Your task to perform on an android device: refresh tabs in the chrome app Image 0: 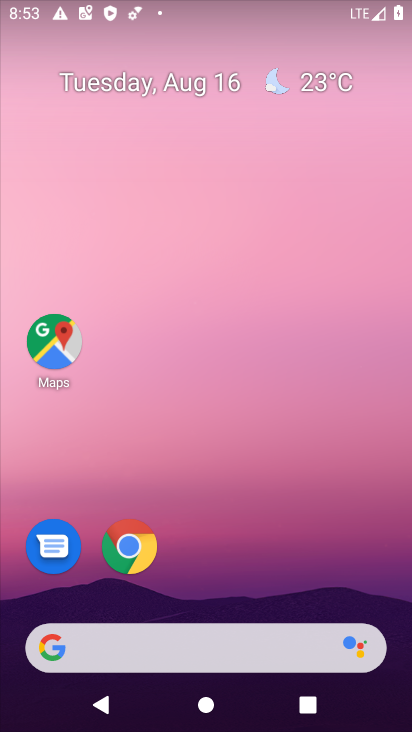
Step 0: click (127, 542)
Your task to perform on an android device: refresh tabs in the chrome app Image 1: 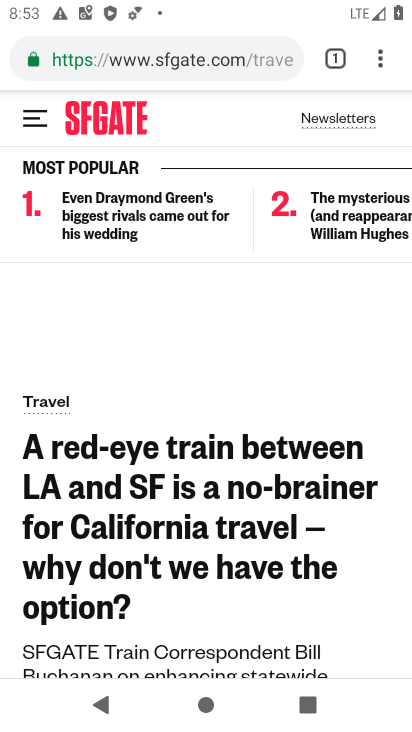
Step 1: click (381, 62)
Your task to perform on an android device: refresh tabs in the chrome app Image 2: 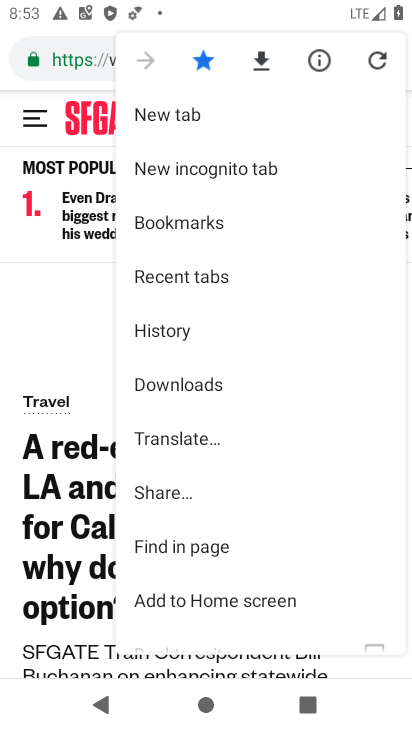
Step 2: click (378, 58)
Your task to perform on an android device: refresh tabs in the chrome app Image 3: 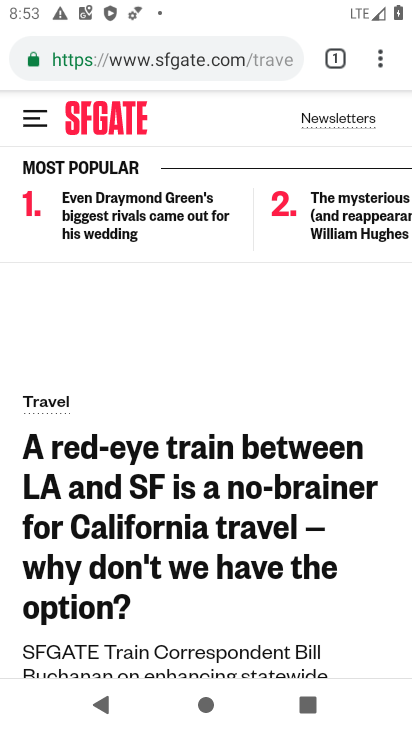
Step 3: task complete